Your task to perform on an android device: empty trash in google photos Image 0: 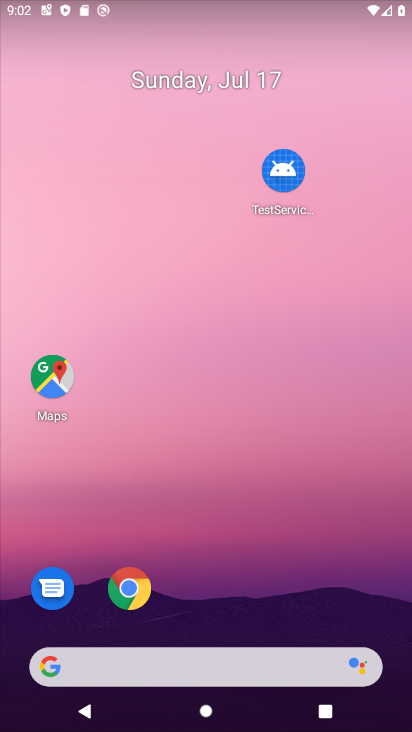
Step 0: drag from (219, 474) to (236, 85)
Your task to perform on an android device: empty trash in google photos Image 1: 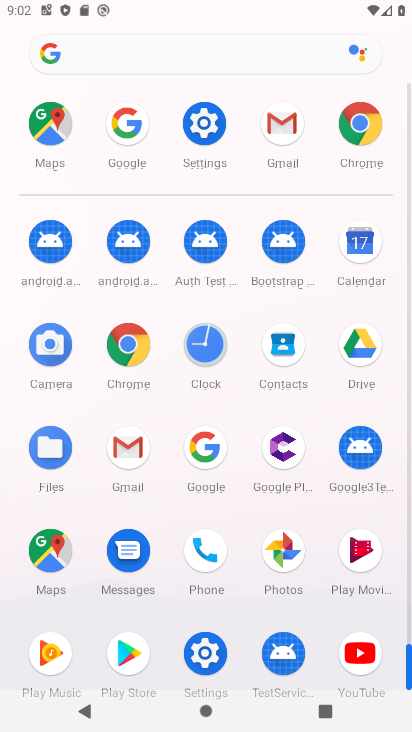
Step 1: click (285, 560)
Your task to perform on an android device: empty trash in google photos Image 2: 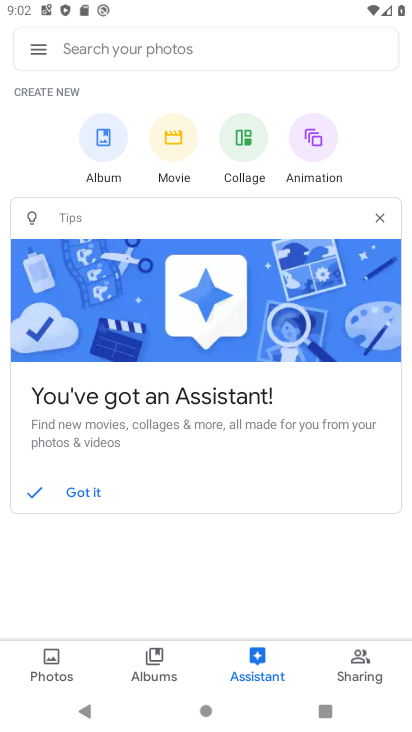
Step 2: click (44, 51)
Your task to perform on an android device: empty trash in google photos Image 3: 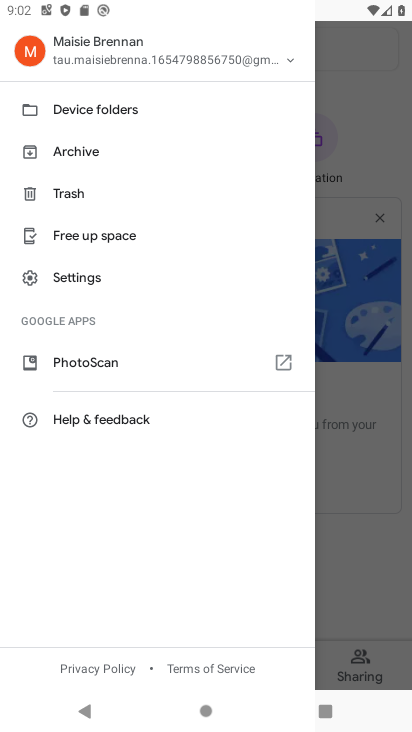
Step 3: click (83, 192)
Your task to perform on an android device: empty trash in google photos Image 4: 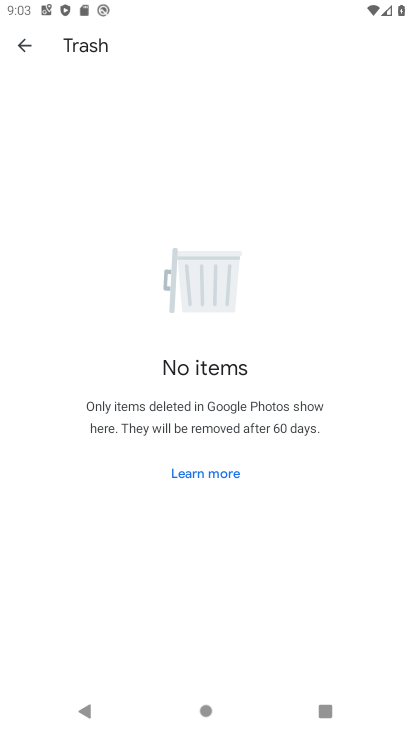
Step 4: task complete